Your task to perform on an android device: turn off sleep mode Image 0: 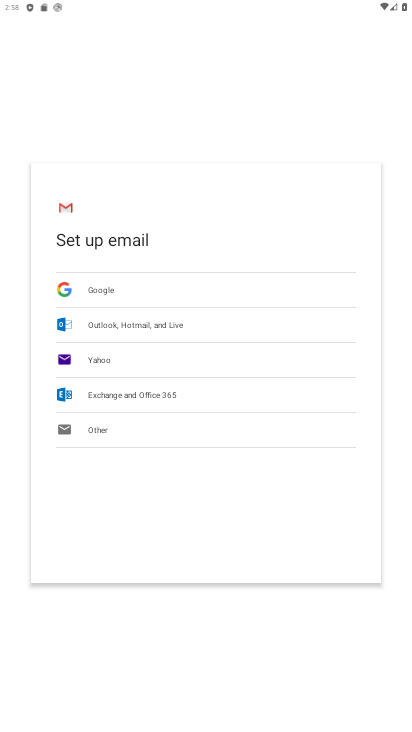
Step 0: press home button
Your task to perform on an android device: turn off sleep mode Image 1: 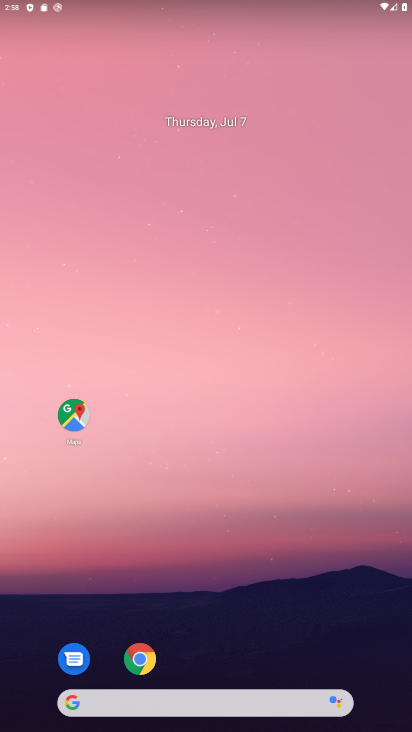
Step 1: drag from (292, 590) to (183, 148)
Your task to perform on an android device: turn off sleep mode Image 2: 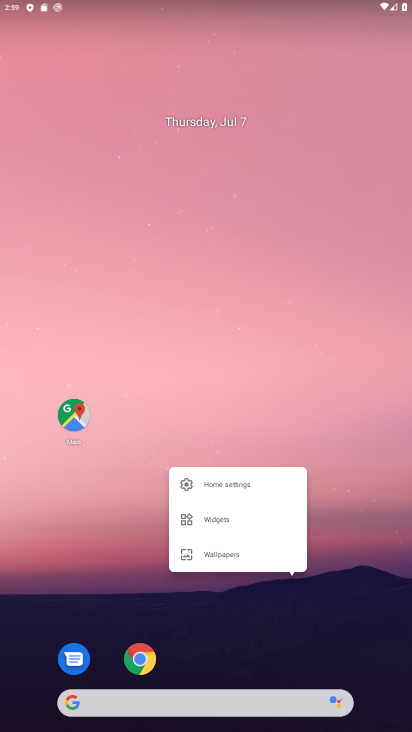
Step 2: click (328, 355)
Your task to perform on an android device: turn off sleep mode Image 3: 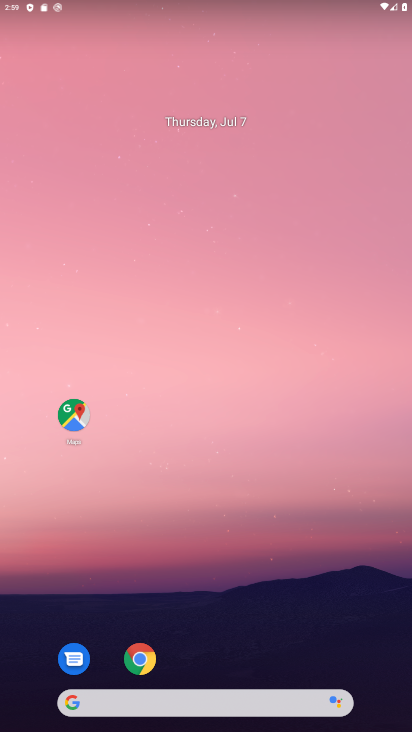
Step 3: drag from (271, 610) to (183, 162)
Your task to perform on an android device: turn off sleep mode Image 4: 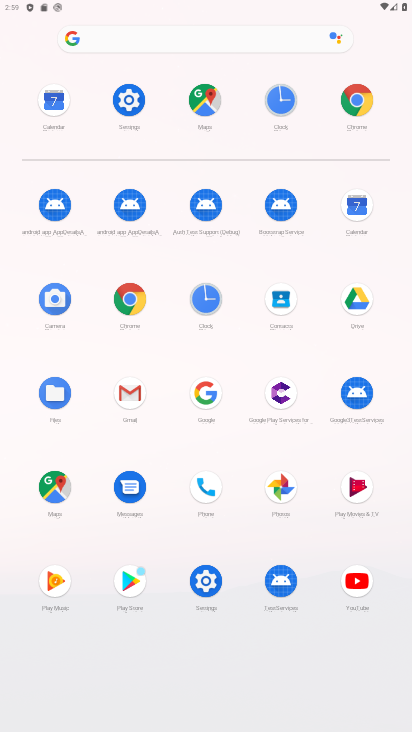
Step 4: click (128, 98)
Your task to perform on an android device: turn off sleep mode Image 5: 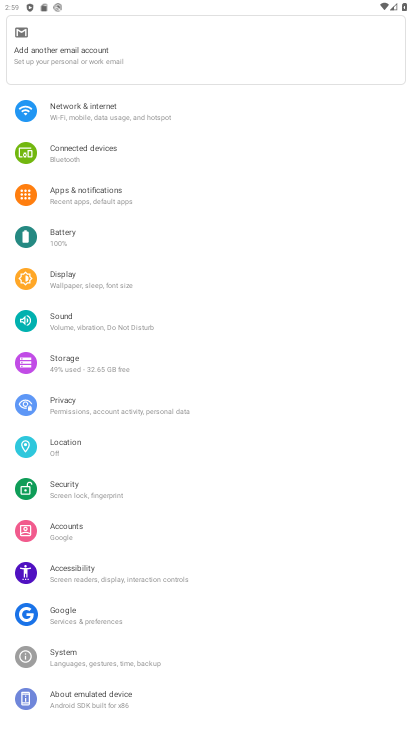
Step 5: click (139, 283)
Your task to perform on an android device: turn off sleep mode Image 6: 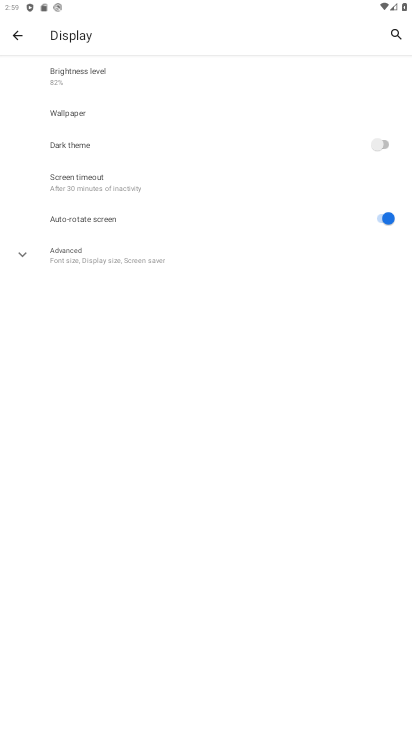
Step 6: click (174, 251)
Your task to perform on an android device: turn off sleep mode Image 7: 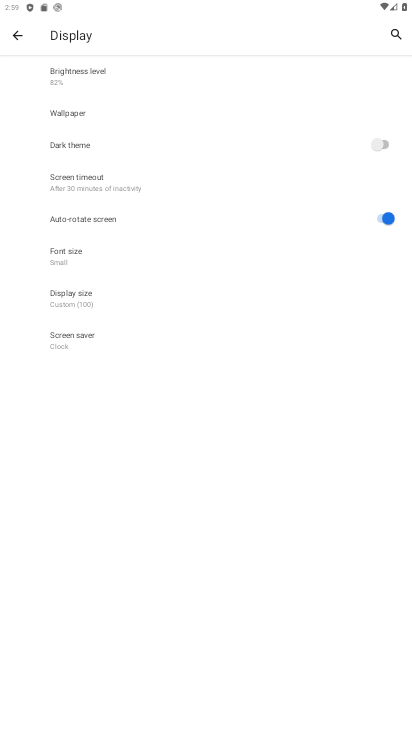
Step 7: task complete